Your task to perform on an android device: add a label to a message in the gmail app Image 0: 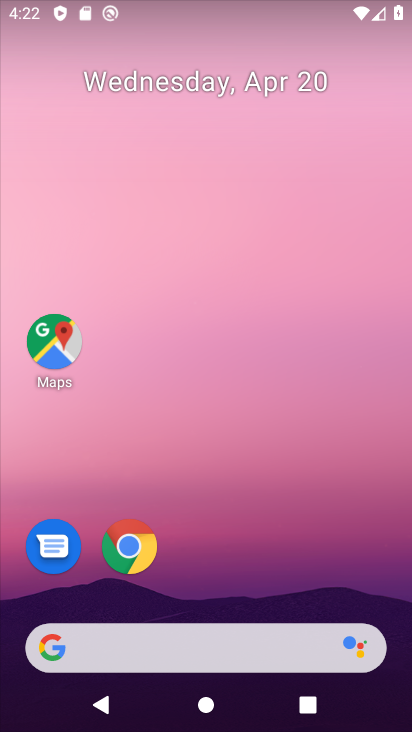
Step 0: drag from (202, 546) to (206, 54)
Your task to perform on an android device: add a label to a message in the gmail app Image 1: 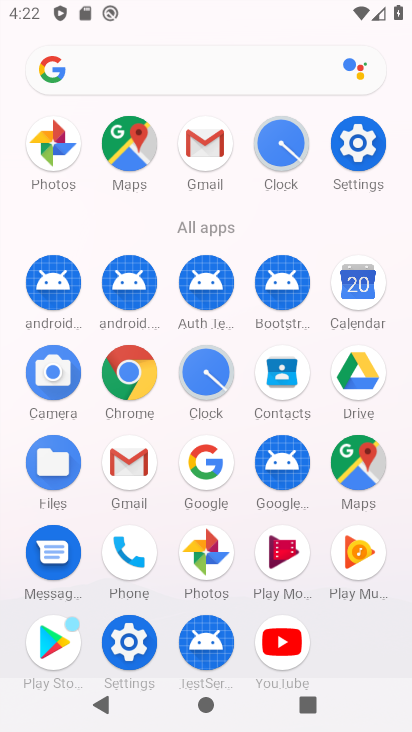
Step 1: click (139, 477)
Your task to perform on an android device: add a label to a message in the gmail app Image 2: 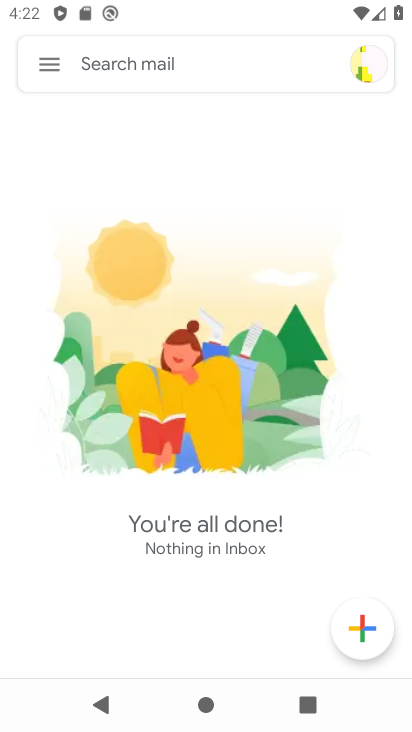
Step 2: task complete